Your task to perform on an android device: change the clock style Image 0: 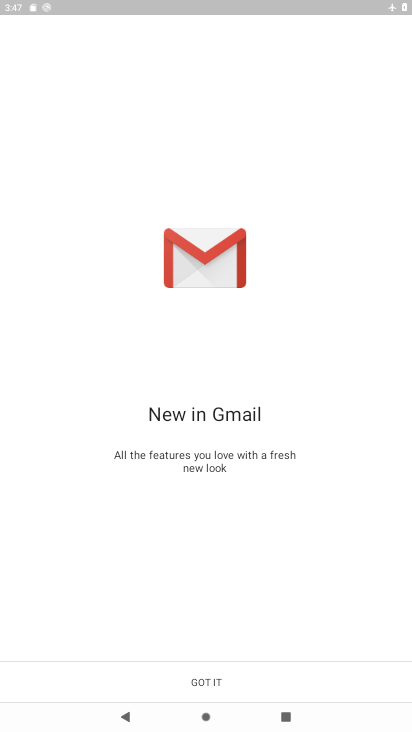
Step 0: press home button
Your task to perform on an android device: change the clock style Image 1: 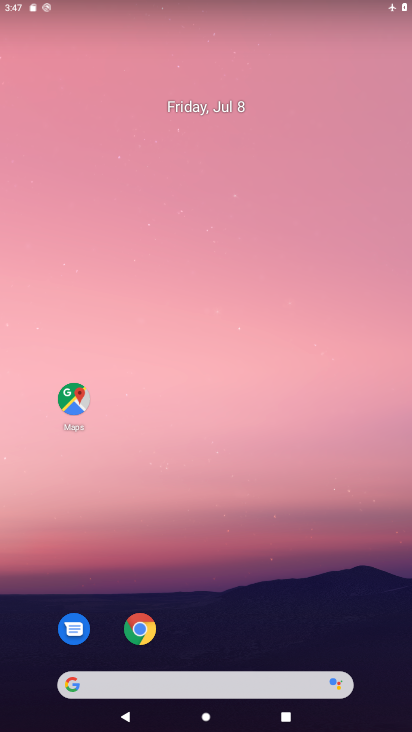
Step 1: drag from (206, 642) to (199, 228)
Your task to perform on an android device: change the clock style Image 2: 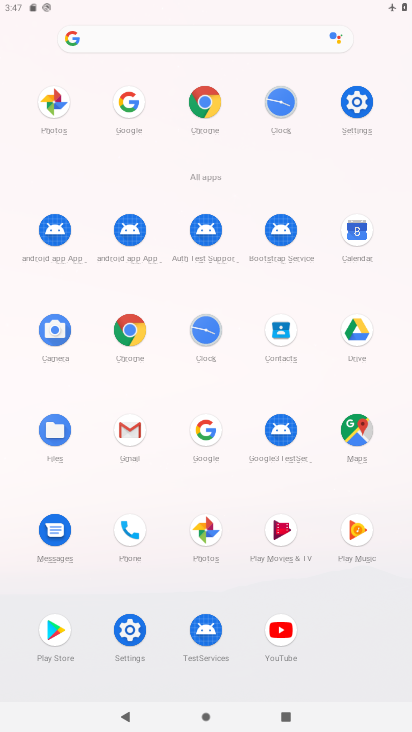
Step 2: click (203, 315)
Your task to perform on an android device: change the clock style Image 3: 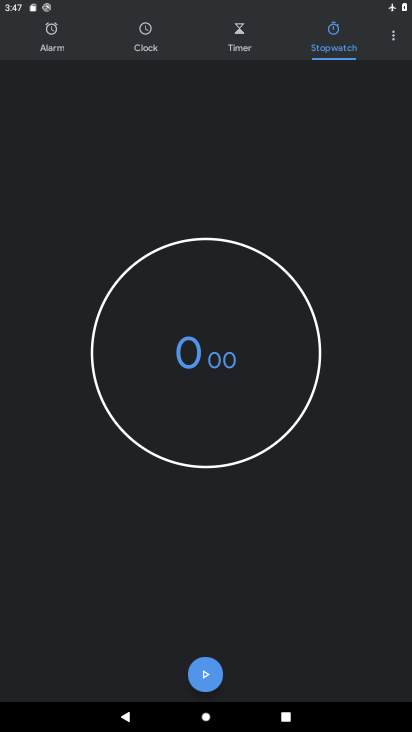
Step 3: click (398, 44)
Your task to perform on an android device: change the clock style Image 4: 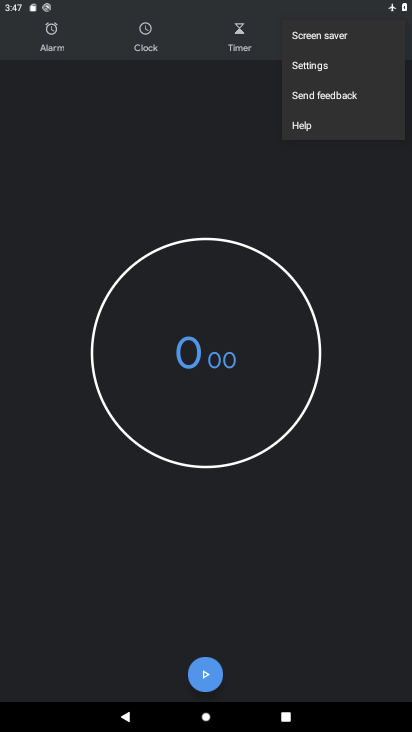
Step 4: click (329, 72)
Your task to perform on an android device: change the clock style Image 5: 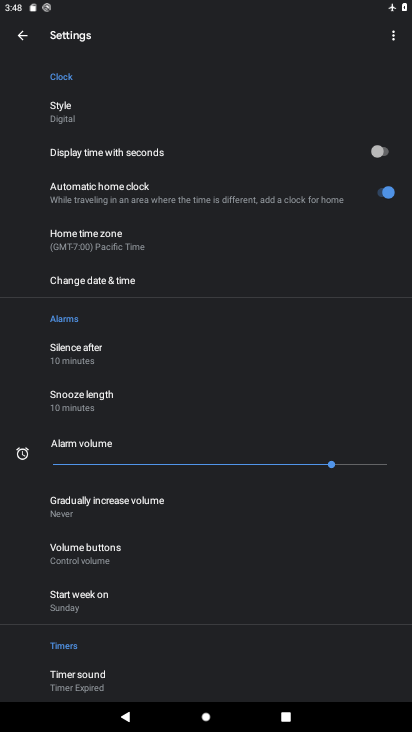
Step 5: click (62, 113)
Your task to perform on an android device: change the clock style Image 6: 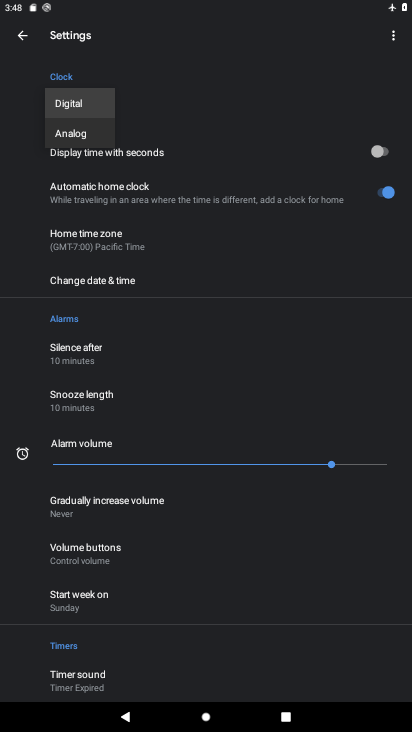
Step 6: click (87, 127)
Your task to perform on an android device: change the clock style Image 7: 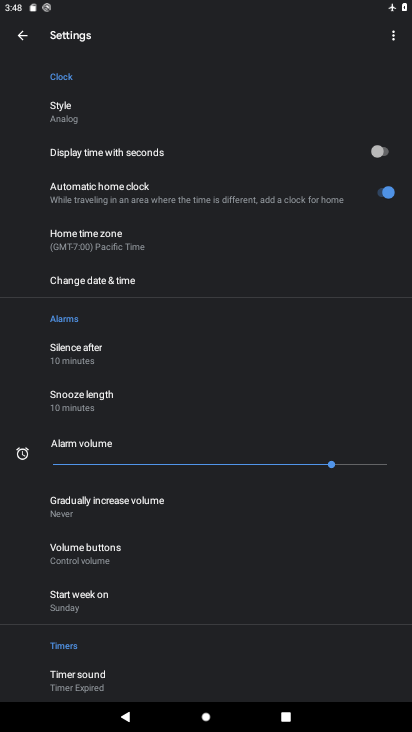
Step 7: task complete